Your task to perform on an android device: Go to settings Image 0: 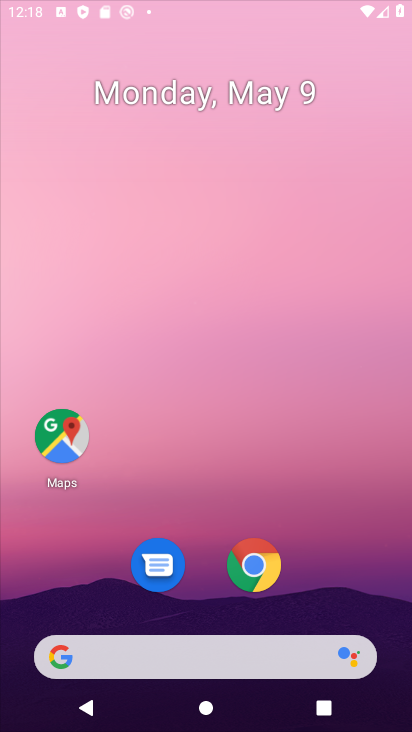
Step 0: press home button
Your task to perform on an android device: Go to settings Image 1: 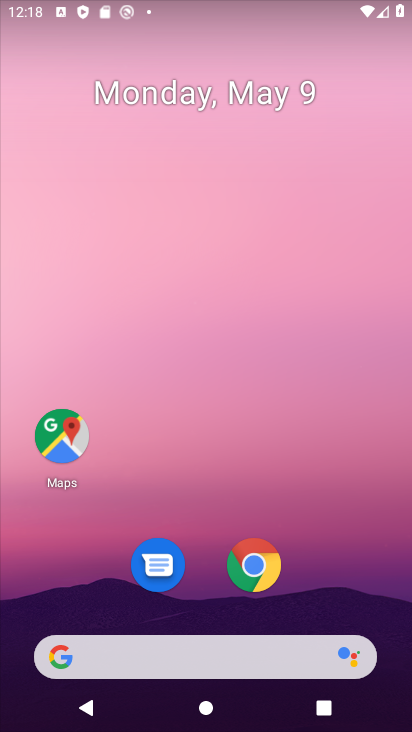
Step 1: drag from (246, 567) to (279, 109)
Your task to perform on an android device: Go to settings Image 2: 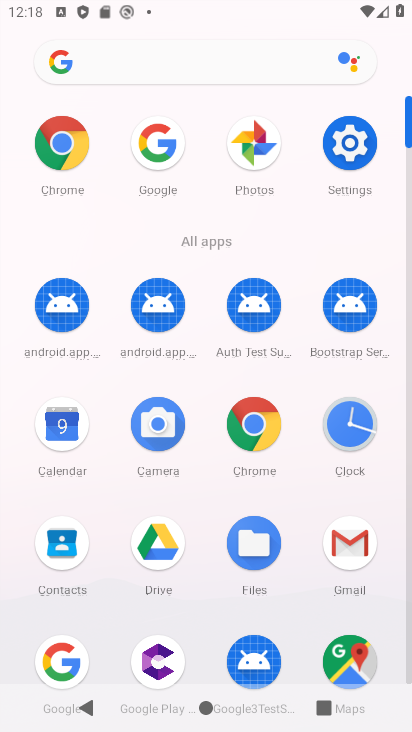
Step 2: click (351, 178)
Your task to perform on an android device: Go to settings Image 3: 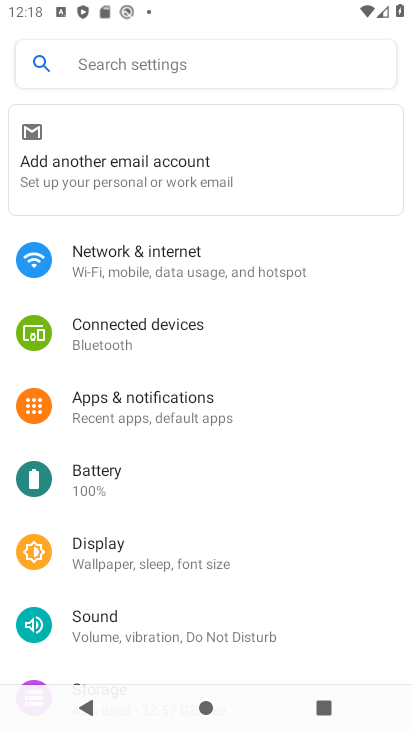
Step 3: task complete